Your task to perform on an android device: toggle airplane mode Image 0: 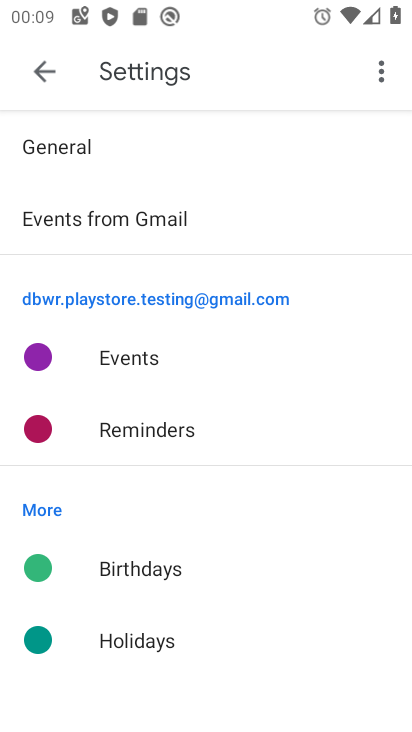
Step 0: press home button
Your task to perform on an android device: toggle airplane mode Image 1: 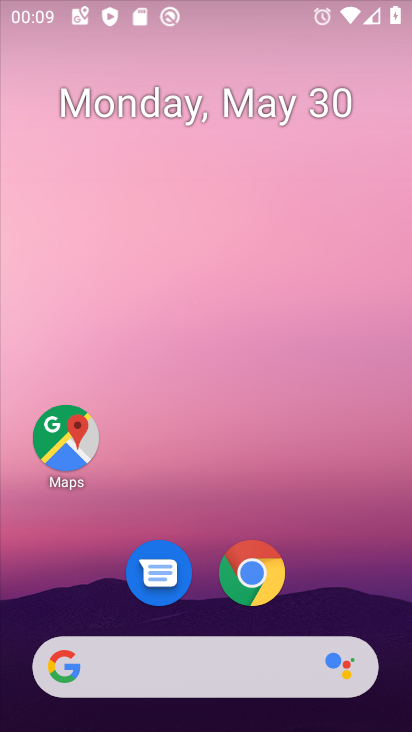
Step 1: drag from (369, 444) to (204, 49)
Your task to perform on an android device: toggle airplane mode Image 2: 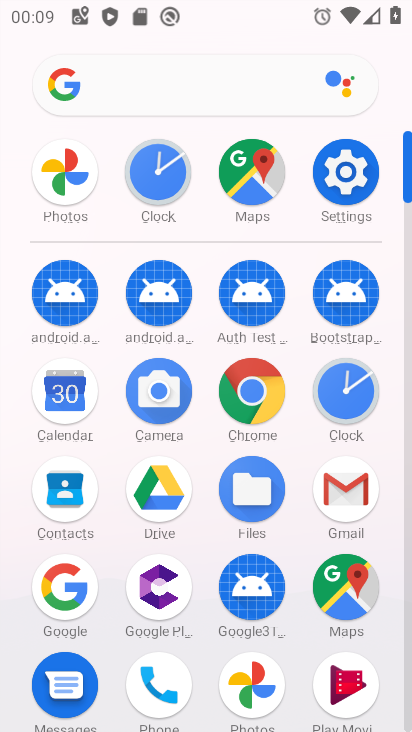
Step 2: click (336, 197)
Your task to perform on an android device: toggle airplane mode Image 3: 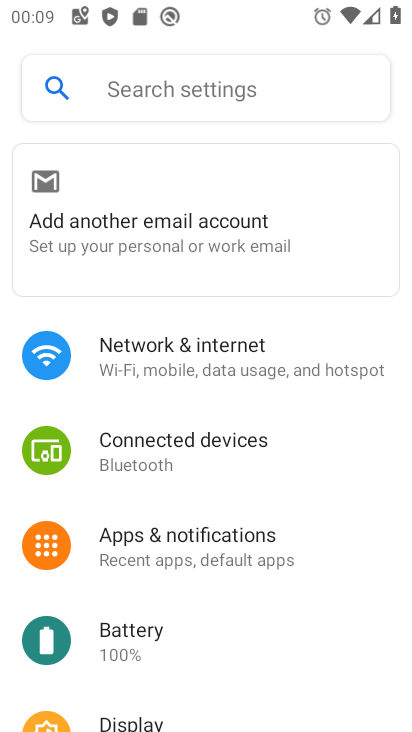
Step 3: click (235, 352)
Your task to perform on an android device: toggle airplane mode Image 4: 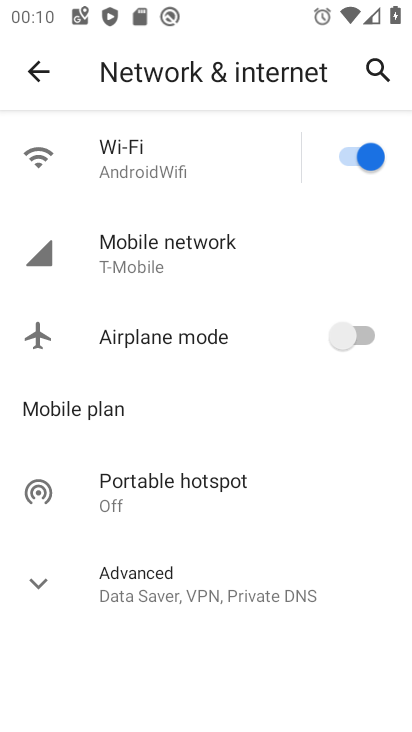
Step 4: click (349, 324)
Your task to perform on an android device: toggle airplane mode Image 5: 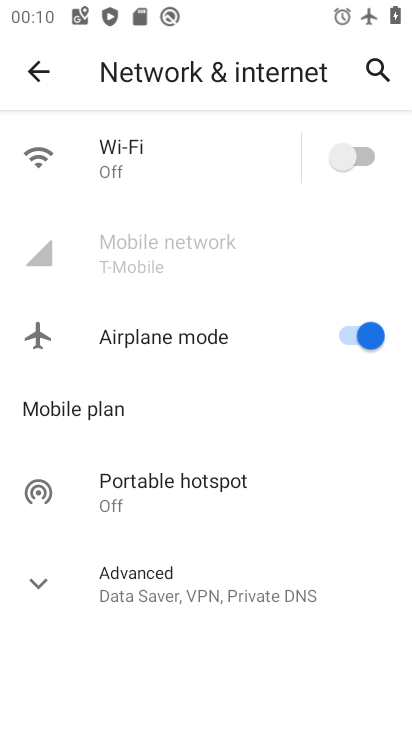
Step 5: task complete